Your task to perform on an android device: find snoozed emails in the gmail app Image 0: 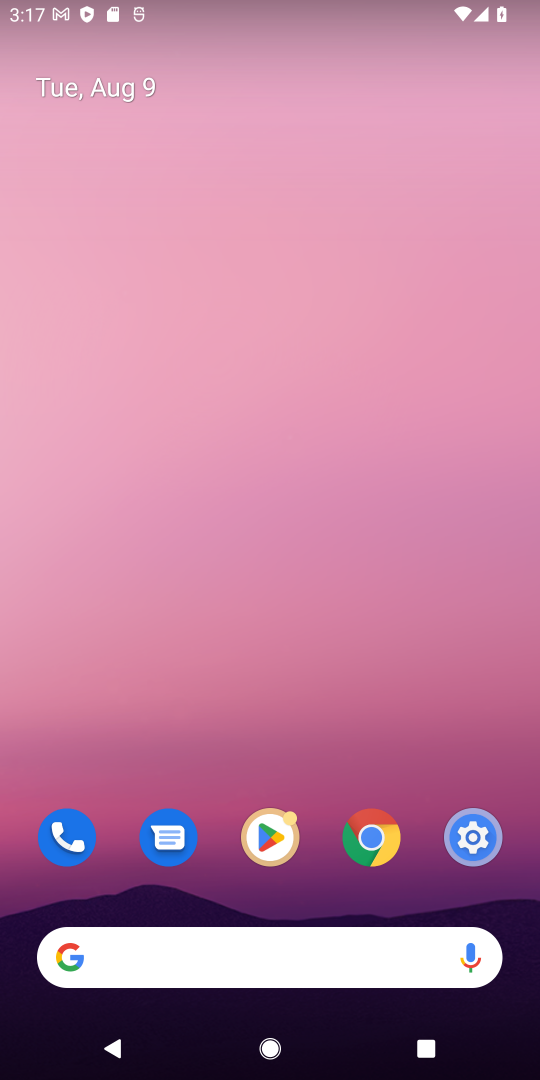
Step 0: drag from (276, 335) to (284, 127)
Your task to perform on an android device: find snoozed emails in the gmail app Image 1: 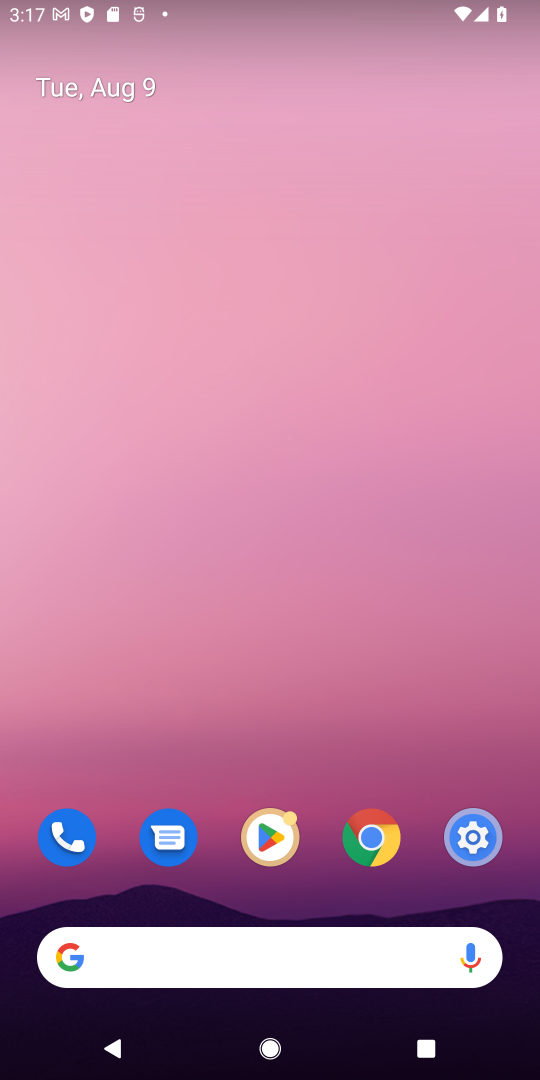
Step 1: drag from (219, 479) to (318, 217)
Your task to perform on an android device: find snoozed emails in the gmail app Image 2: 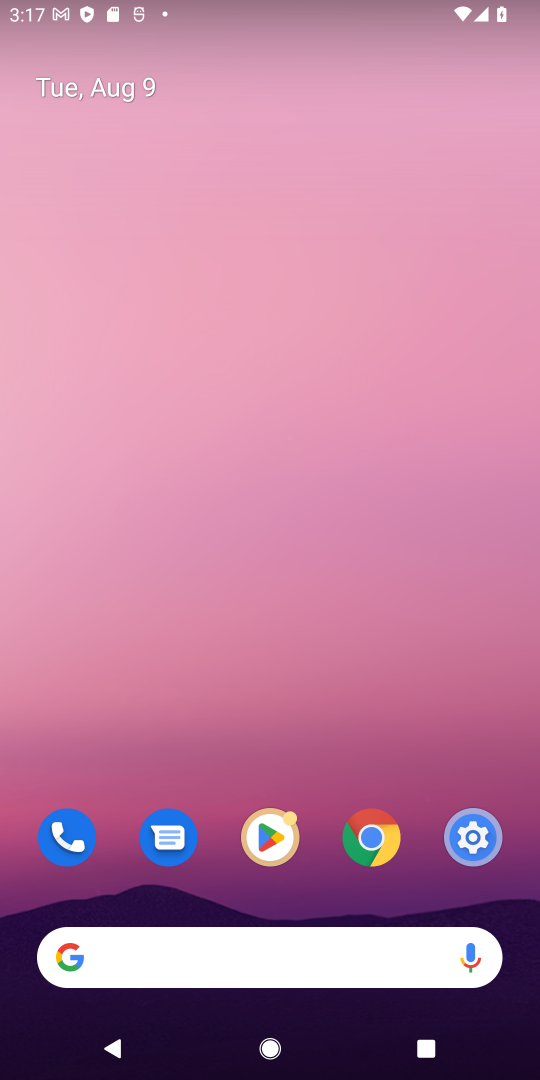
Step 2: drag from (266, 832) to (208, 275)
Your task to perform on an android device: find snoozed emails in the gmail app Image 3: 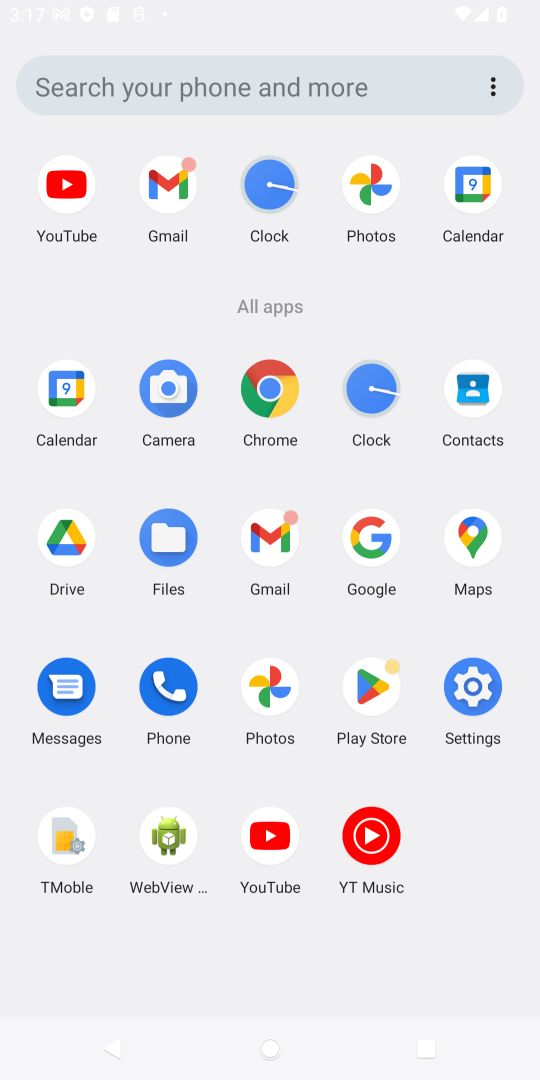
Step 3: drag from (226, 558) to (226, 300)
Your task to perform on an android device: find snoozed emails in the gmail app Image 4: 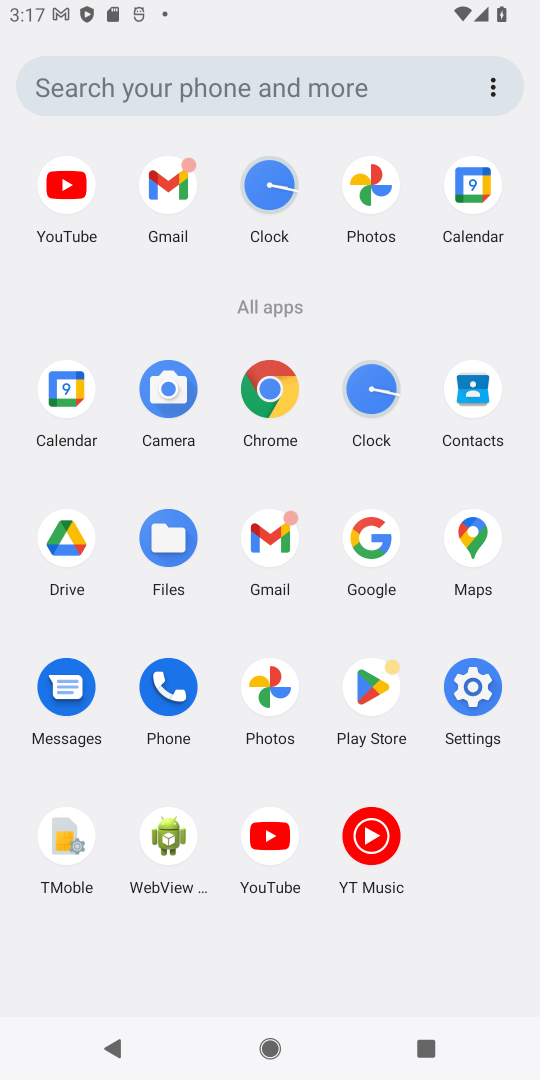
Step 4: click (258, 540)
Your task to perform on an android device: find snoozed emails in the gmail app Image 5: 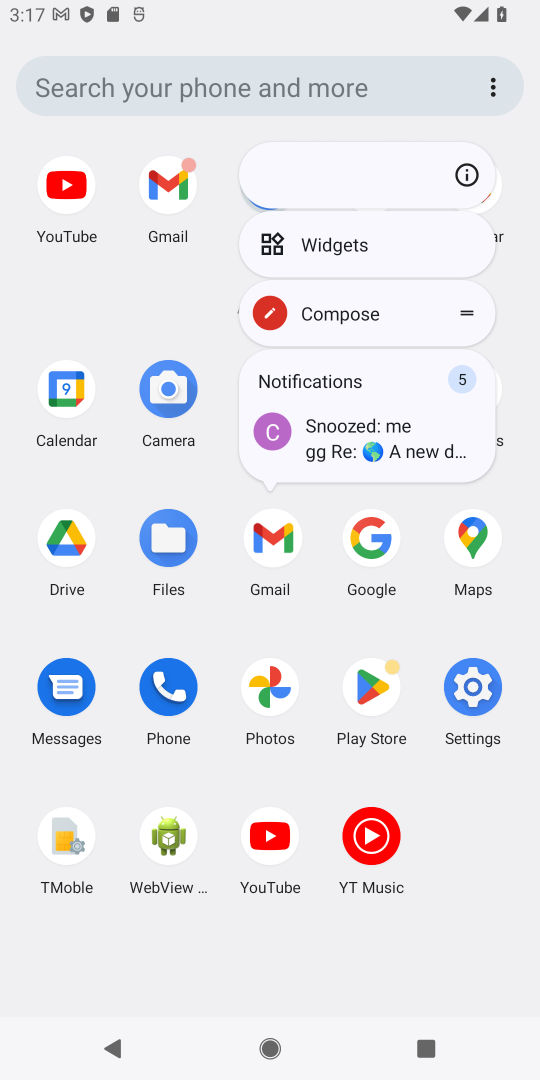
Step 5: click (295, 525)
Your task to perform on an android device: find snoozed emails in the gmail app Image 6: 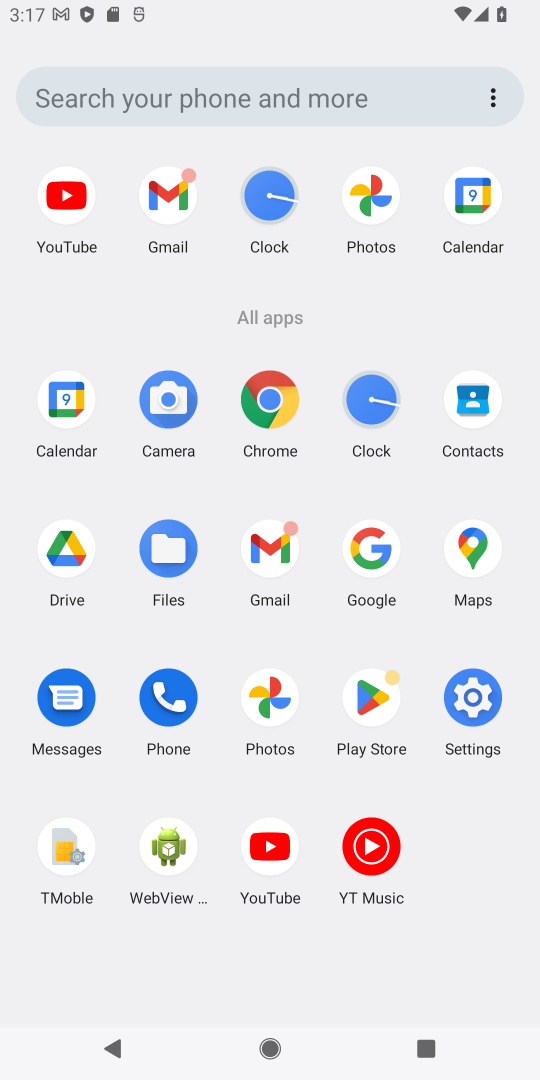
Step 6: click (284, 535)
Your task to perform on an android device: find snoozed emails in the gmail app Image 7: 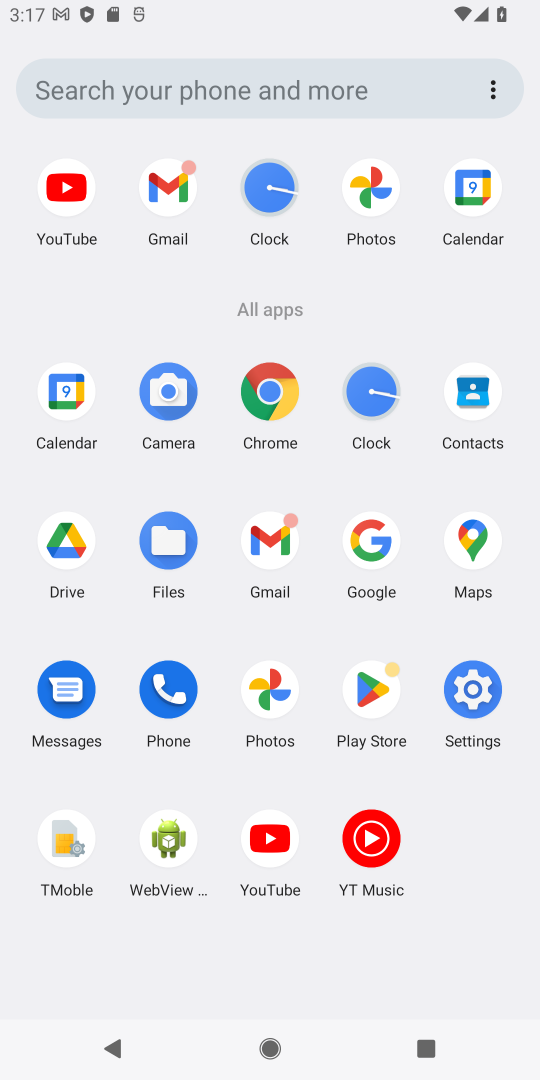
Step 7: click (280, 547)
Your task to perform on an android device: find snoozed emails in the gmail app Image 8: 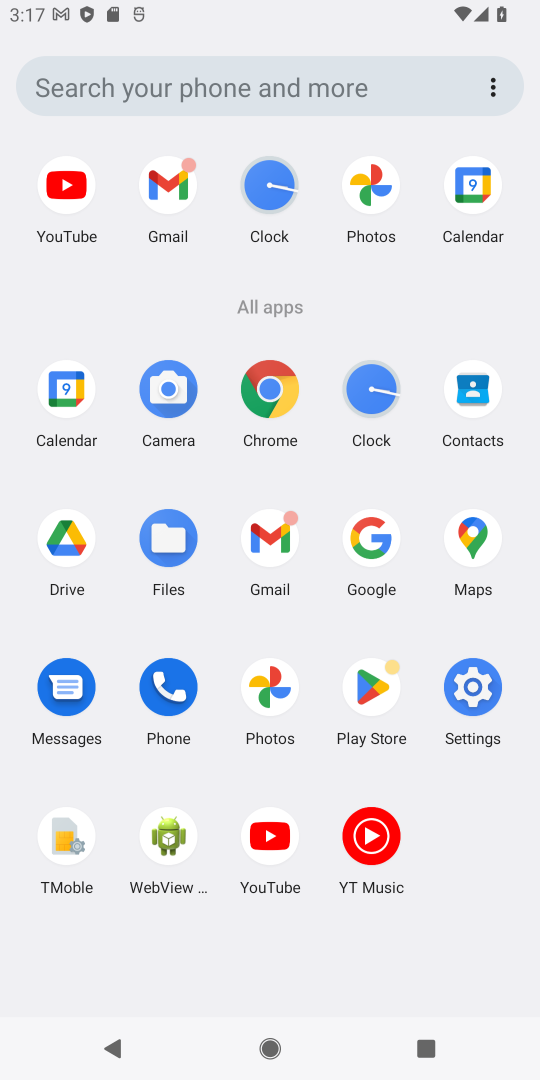
Step 8: click (279, 545)
Your task to perform on an android device: find snoozed emails in the gmail app Image 9: 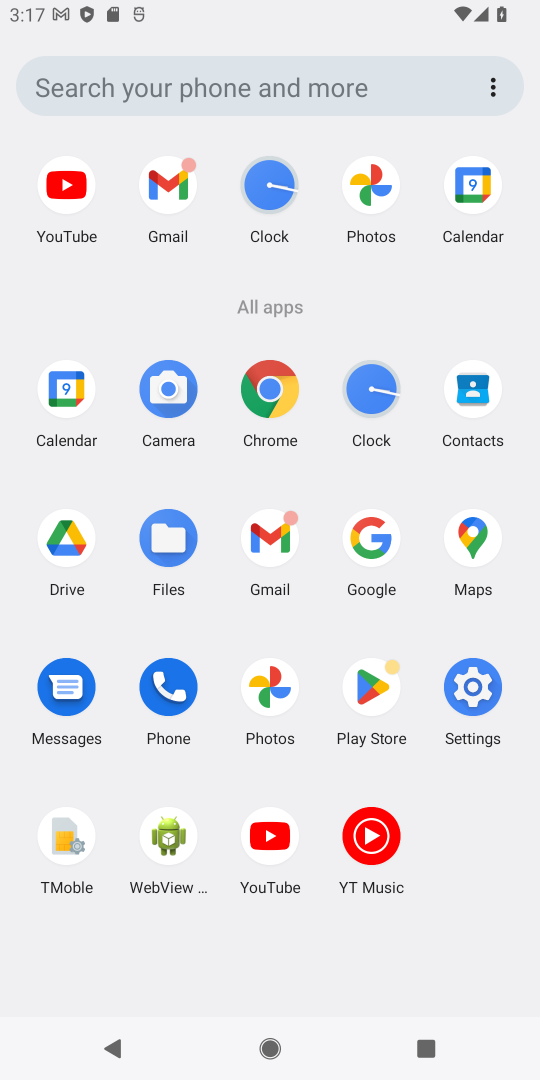
Step 9: click (253, 381)
Your task to perform on an android device: find snoozed emails in the gmail app Image 10: 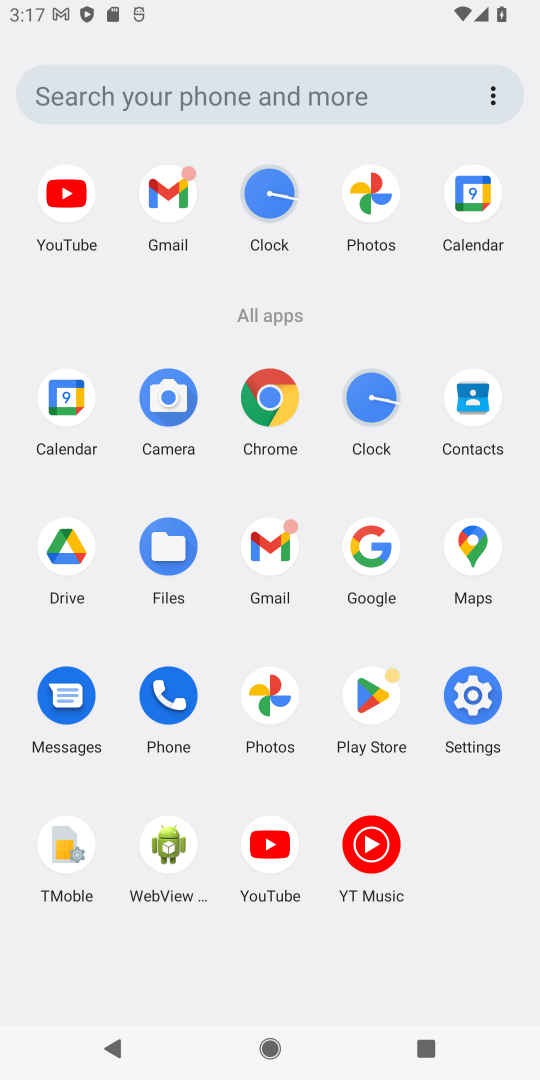
Step 10: click (279, 421)
Your task to perform on an android device: find snoozed emails in the gmail app Image 11: 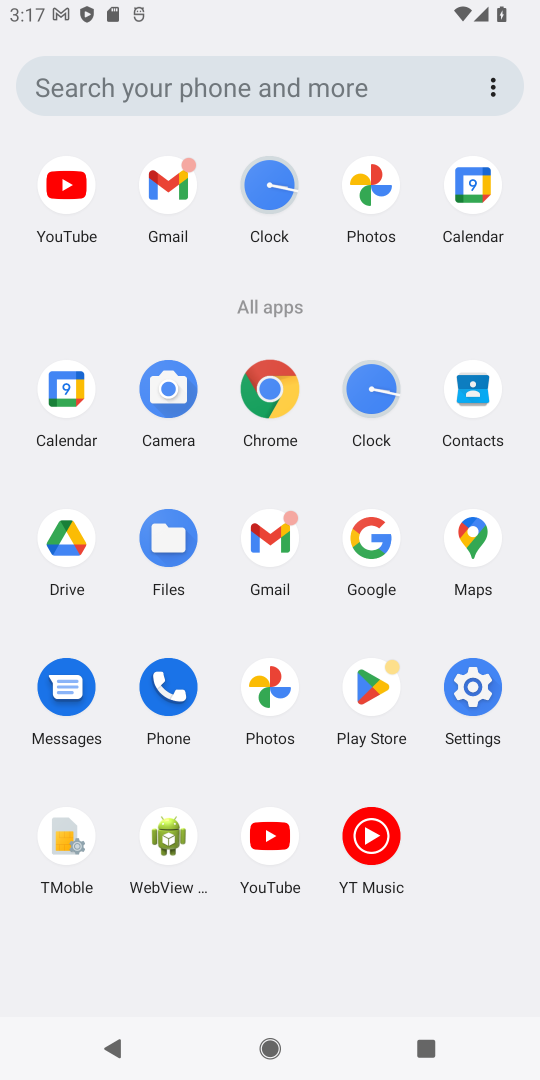
Step 11: click (265, 418)
Your task to perform on an android device: find snoozed emails in the gmail app Image 12: 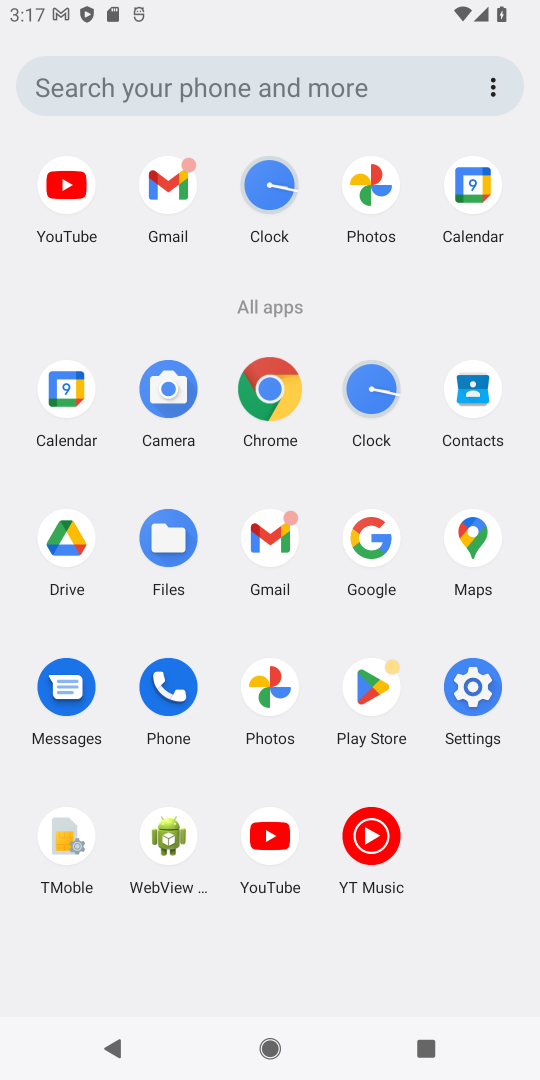
Step 12: click (257, 420)
Your task to perform on an android device: find snoozed emails in the gmail app Image 13: 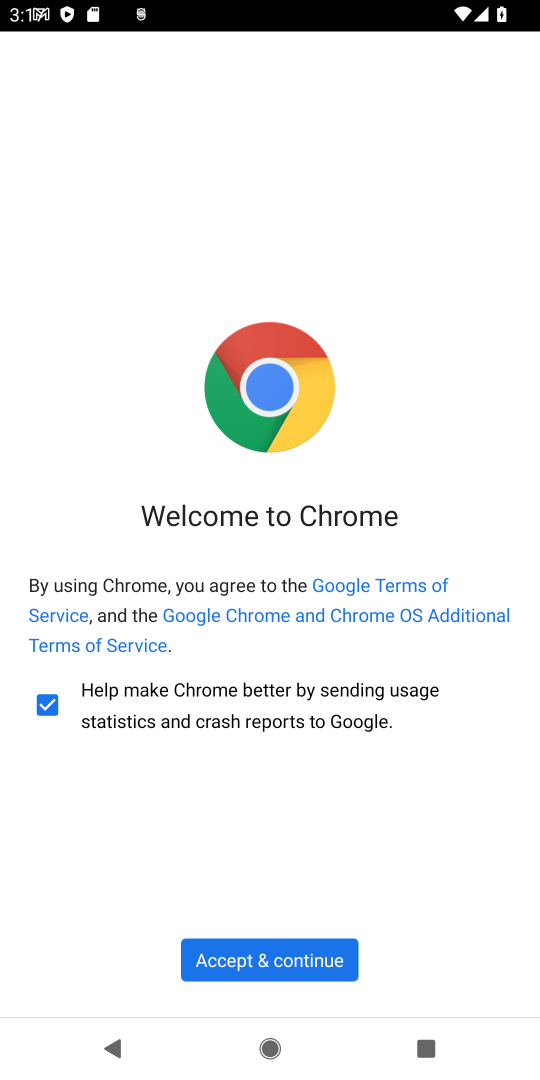
Step 13: press back button
Your task to perform on an android device: find snoozed emails in the gmail app Image 14: 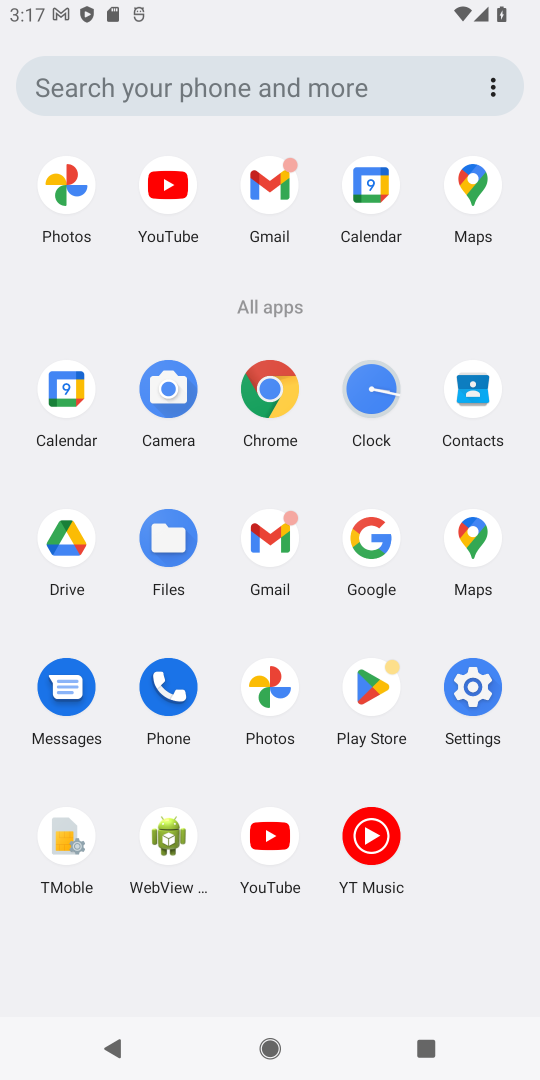
Step 14: click (279, 536)
Your task to perform on an android device: find snoozed emails in the gmail app Image 15: 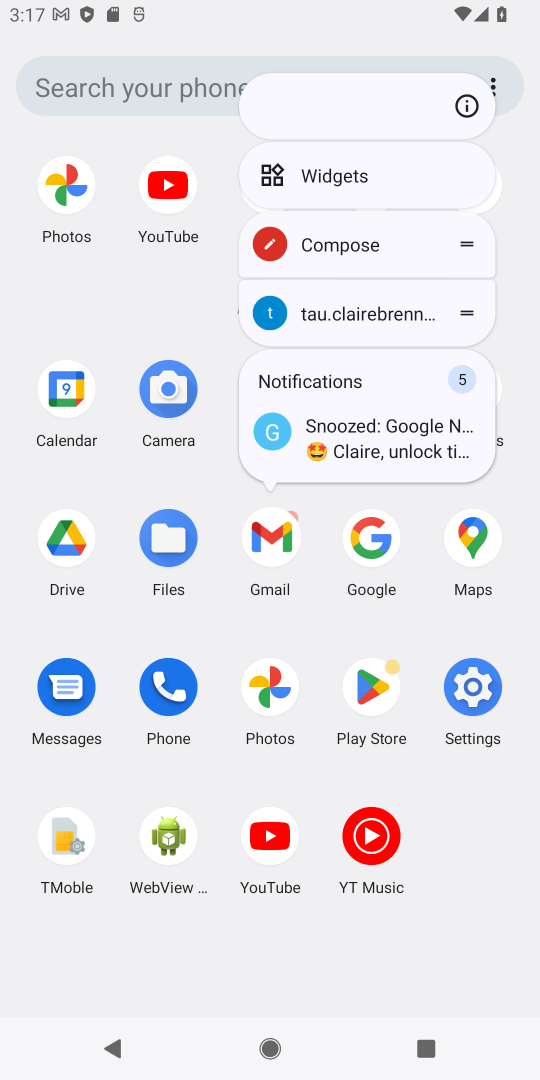
Step 15: click (258, 544)
Your task to perform on an android device: find snoozed emails in the gmail app Image 16: 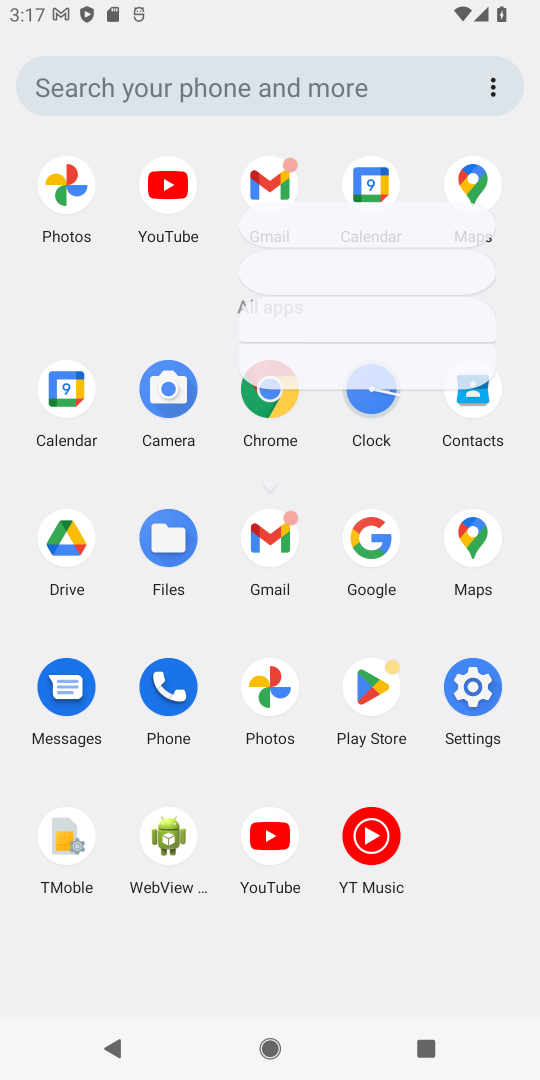
Step 16: click (266, 544)
Your task to perform on an android device: find snoozed emails in the gmail app Image 17: 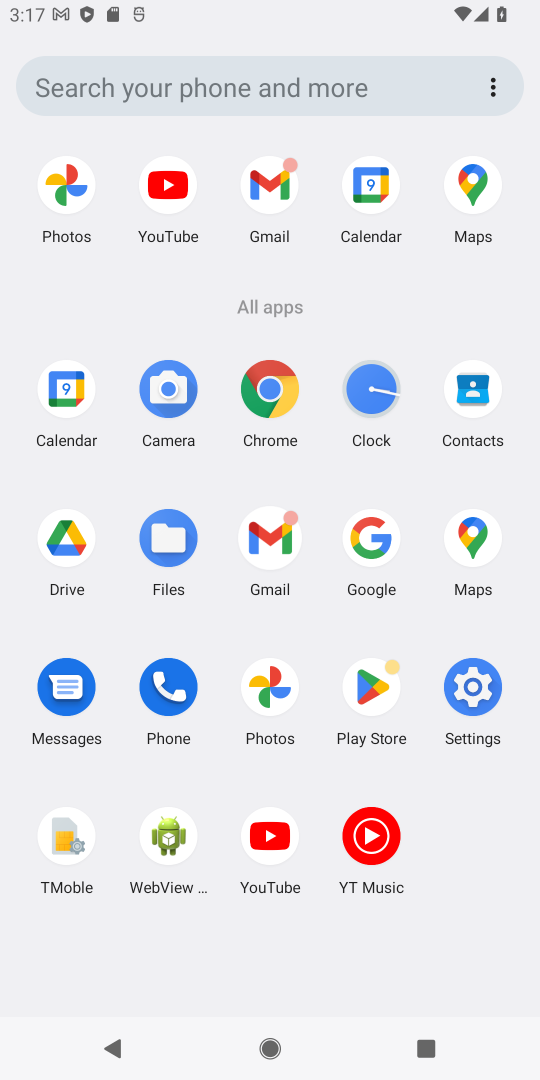
Step 17: click (276, 544)
Your task to perform on an android device: find snoozed emails in the gmail app Image 18: 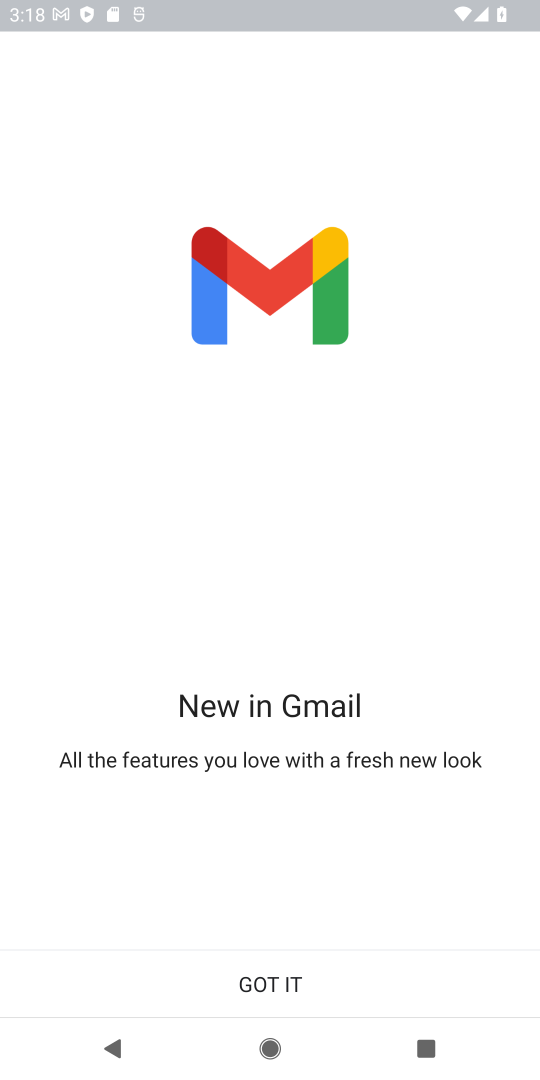
Step 18: click (266, 985)
Your task to perform on an android device: find snoozed emails in the gmail app Image 19: 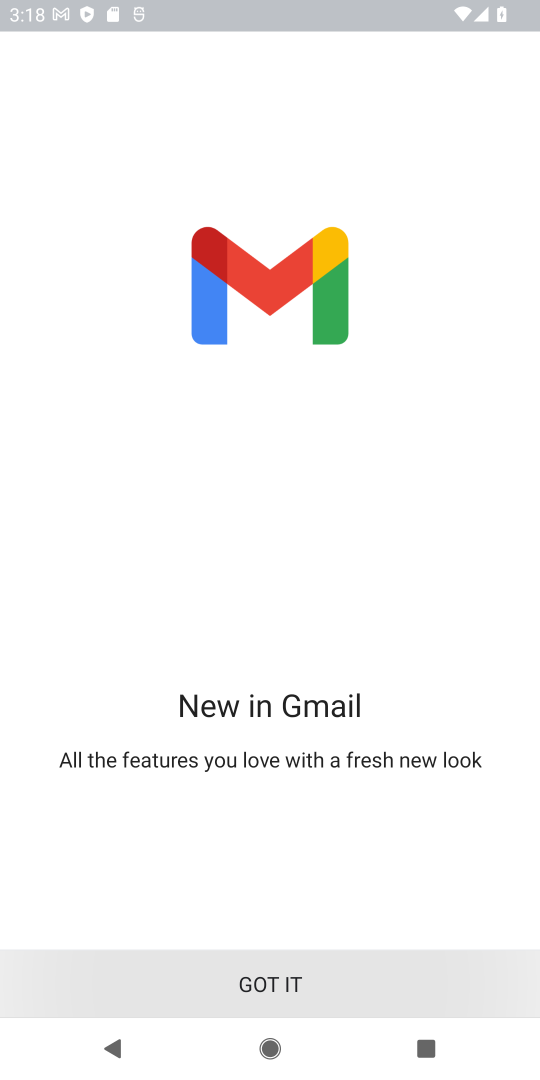
Step 19: click (267, 986)
Your task to perform on an android device: find snoozed emails in the gmail app Image 20: 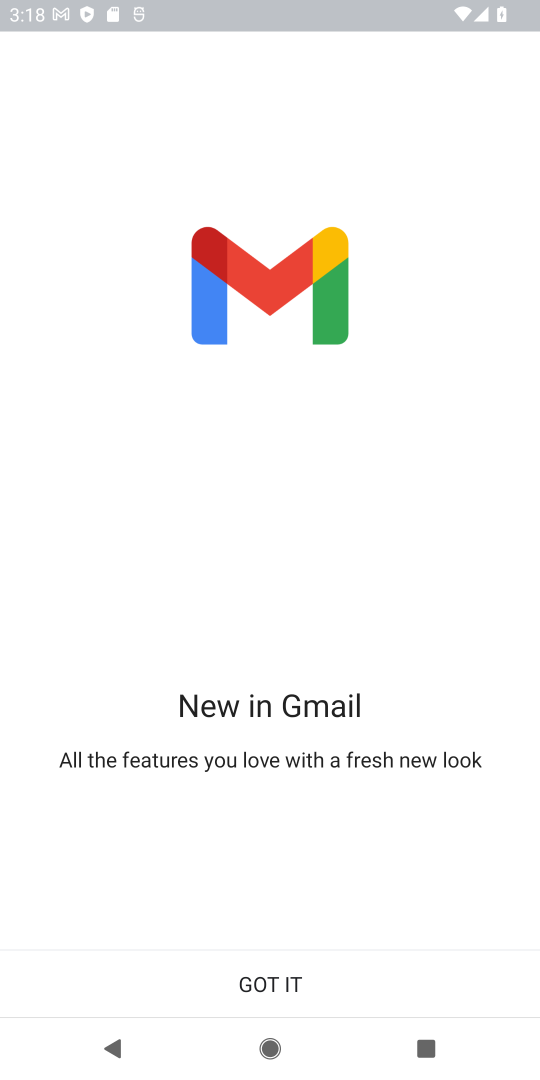
Step 20: click (268, 986)
Your task to perform on an android device: find snoozed emails in the gmail app Image 21: 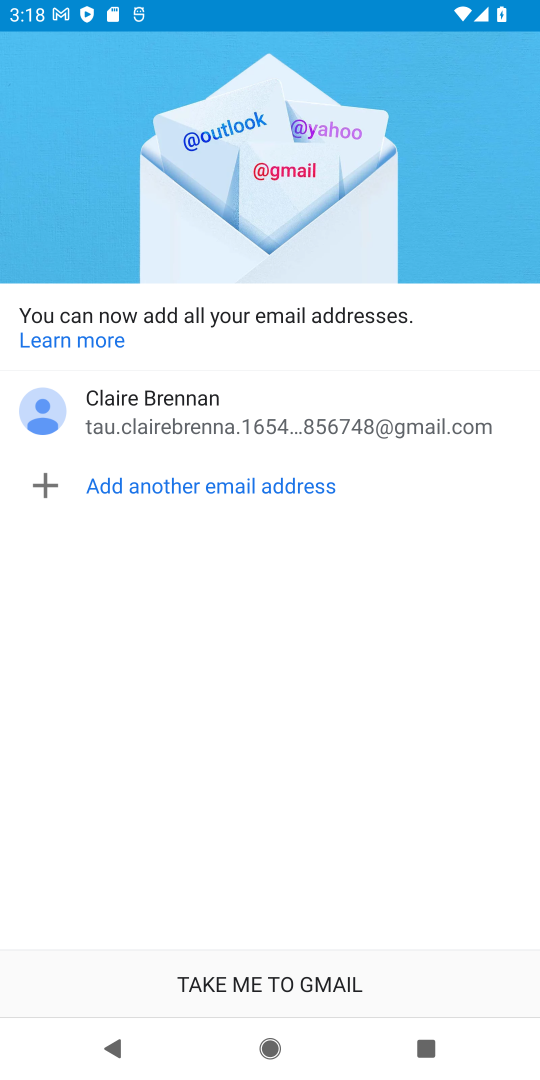
Step 21: click (302, 992)
Your task to perform on an android device: find snoozed emails in the gmail app Image 22: 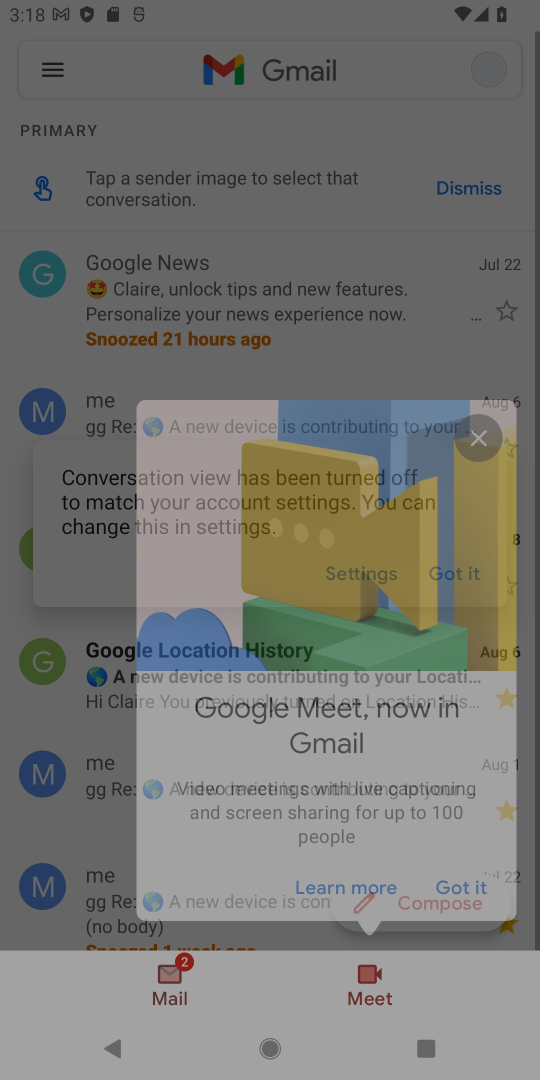
Step 22: click (440, 579)
Your task to perform on an android device: find snoozed emails in the gmail app Image 23: 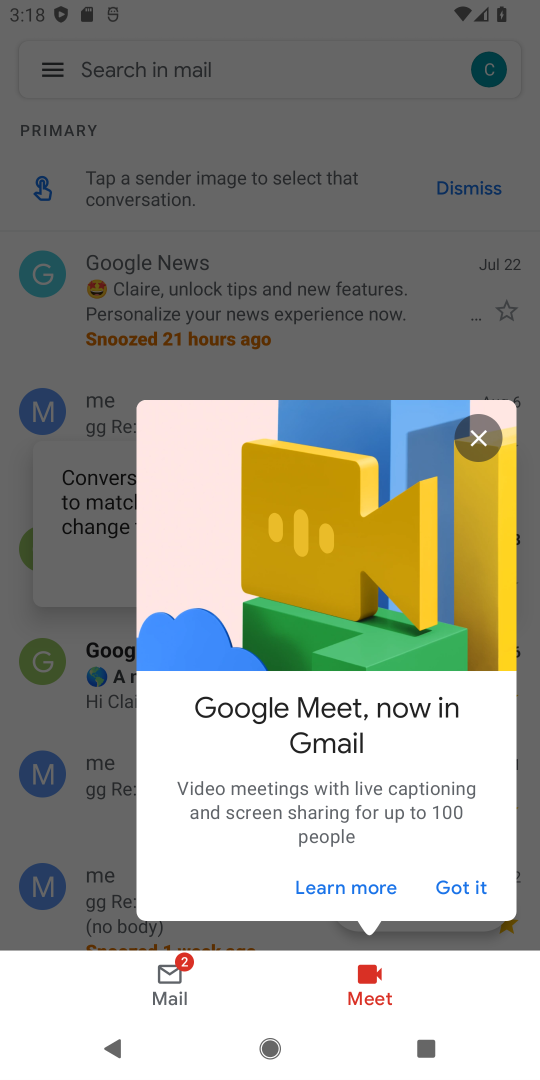
Step 23: click (474, 444)
Your task to perform on an android device: find snoozed emails in the gmail app Image 24: 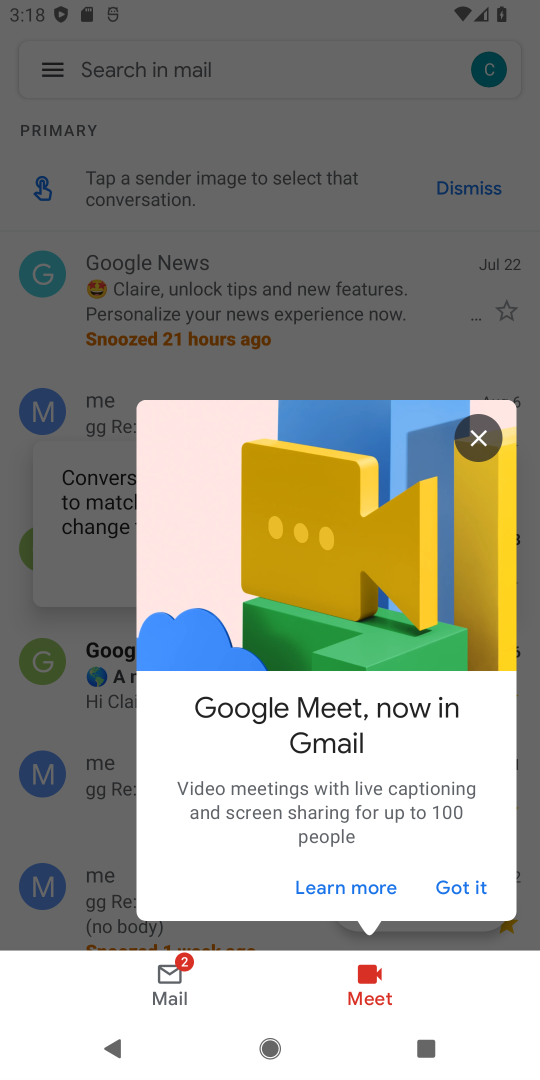
Step 24: click (482, 437)
Your task to perform on an android device: find snoozed emails in the gmail app Image 25: 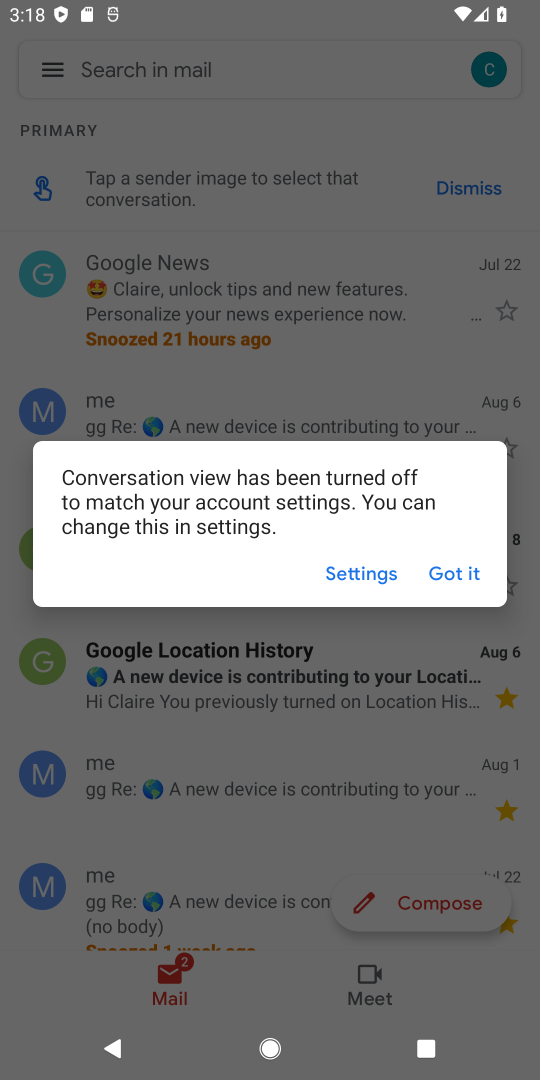
Step 25: click (449, 568)
Your task to perform on an android device: find snoozed emails in the gmail app Image 26: 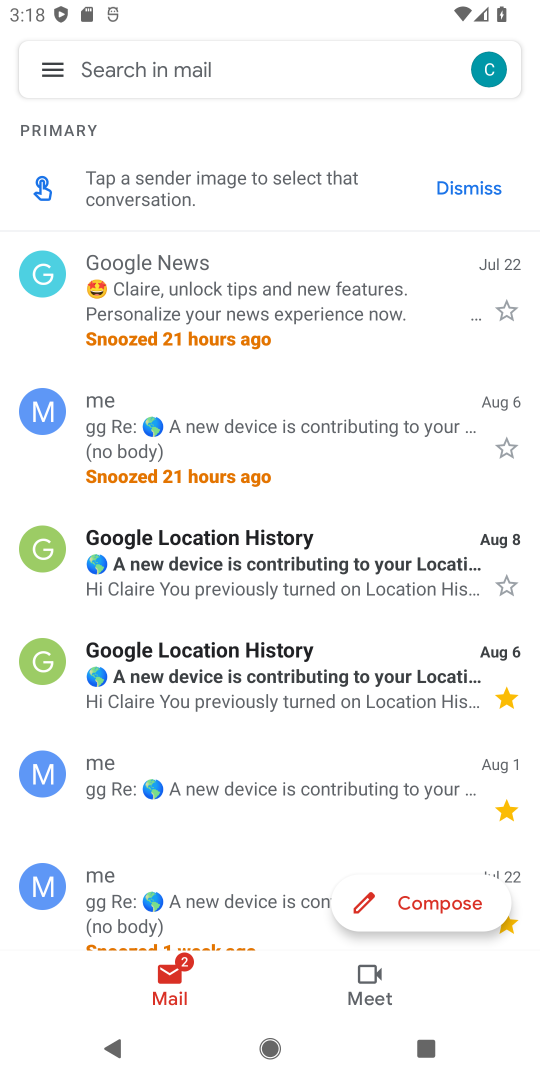
Step 26: click (190, 314)
Your task to perform on an android device: find snoozed emails in the gmail app Image 27: 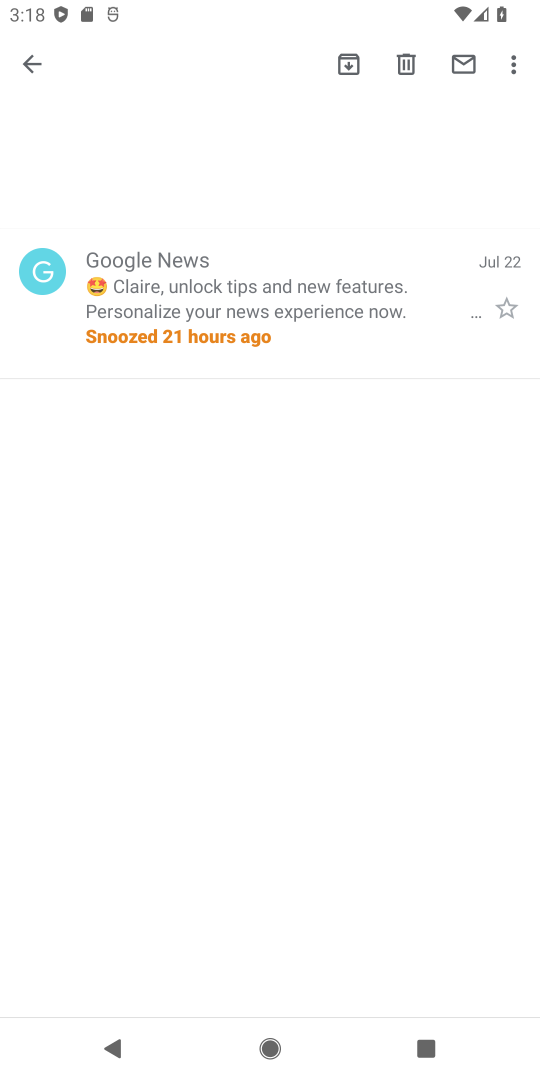
Step 27: task complete